Your task to perform on an android device: Open ESPN.com Image 0: 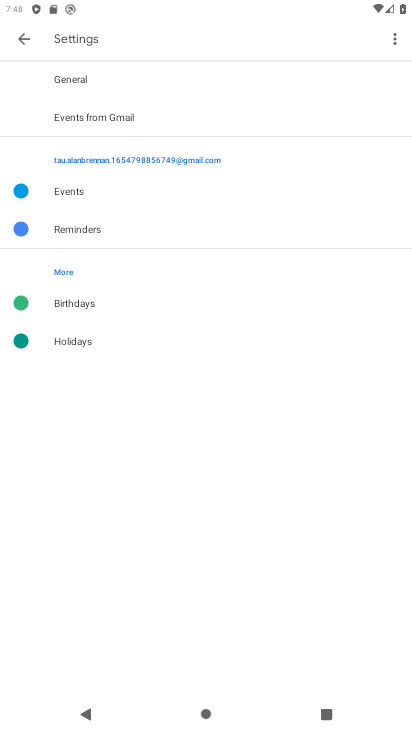
Step 0: press home button
Your task to perform on an android device: Open ESPN.com Image 1: 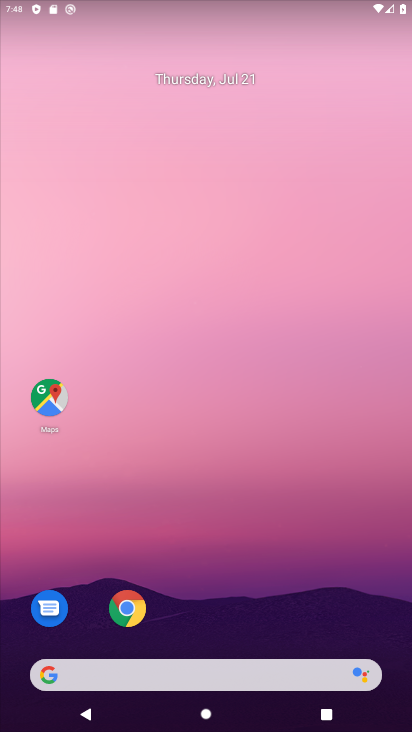
Step 1: click (130, 602)
Your task to perform on an android device: Open ESPN.com Image 2: 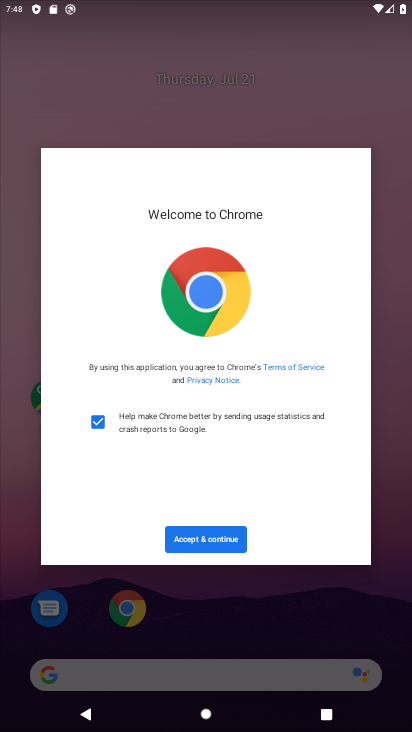
Step 2: click (198, 541)
Your task to perform on an android device: Open ESPN.com Image 3: 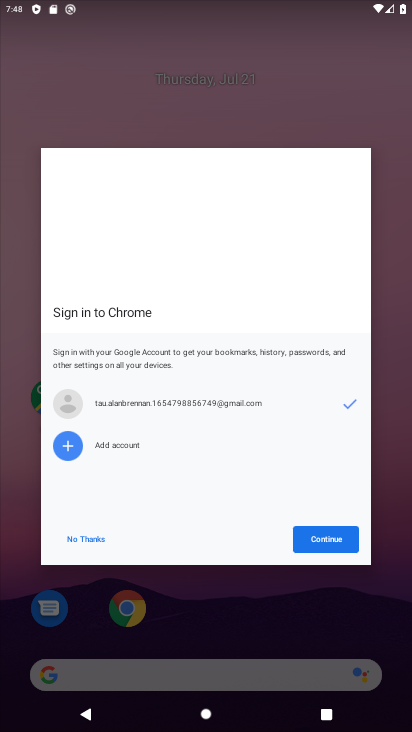
Step 3: click (338, 537)
Your task to perform on an android device: Open ESPN.com Image 4: 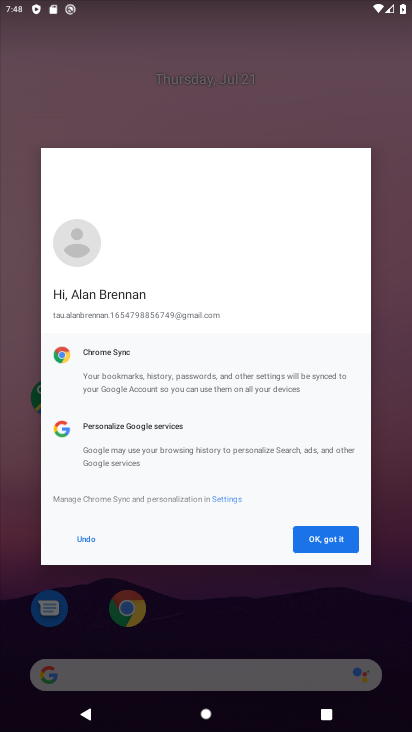
Step 4: click (329, 536)
Your task to perform on an android device: Open ESPN.com Image 5: 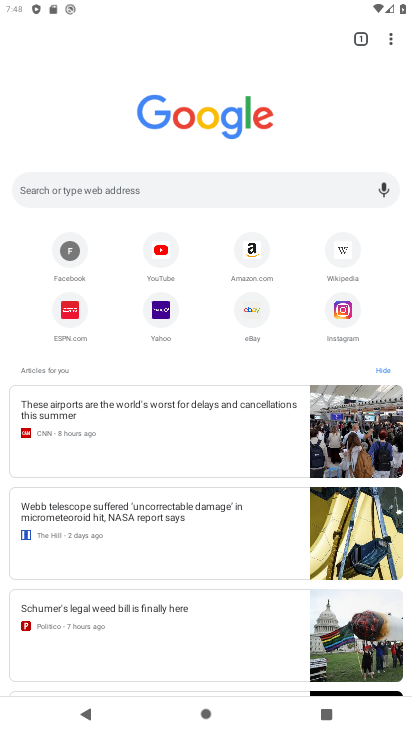
Step 5: click (61, 308)
Your task to perform on an android device: Open ESPN.com Image 6: 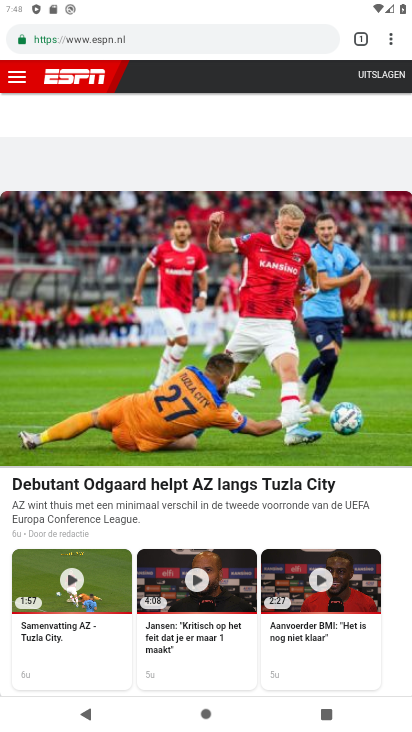
Step 6: drag from (212, 523) to (236, 308)
Your task to perform on an android device: Open ESPN.com Image 7: 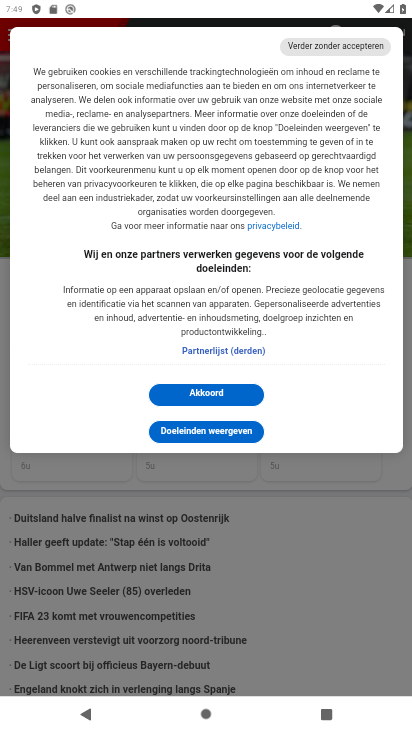
Step 7: click (207, 392)
Your task to perform on an android device: Open ESPN.com Image 8: 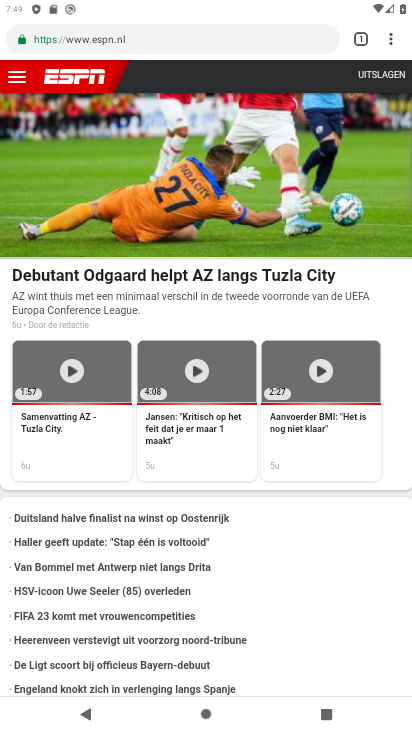
Step 8: task complete